Your task to perform on an android device: Open calendar and show me the fourth week of next month Image 0: 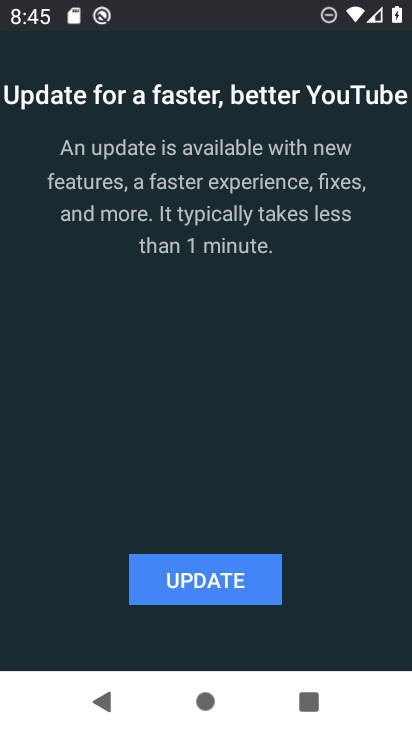
Step 0: press home button
Your task to perform on an android device: Open calendar and show me the fourth week of next month Image 1: 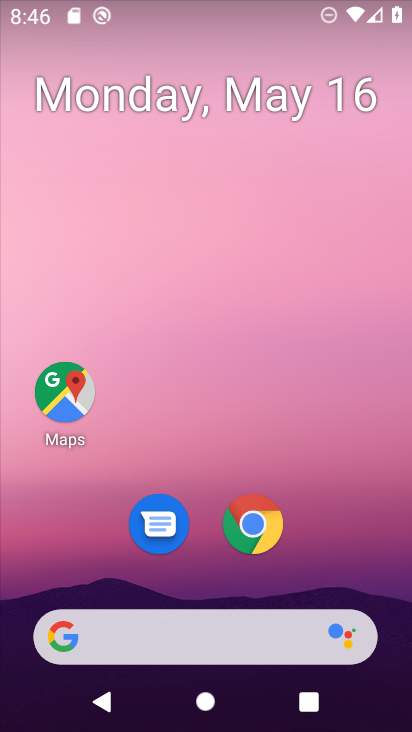
Step 1: drag from (318, 531) to (264, 87)
Your task to perform on an android device: Open calendar and show me the fourth week of next month Image 2: 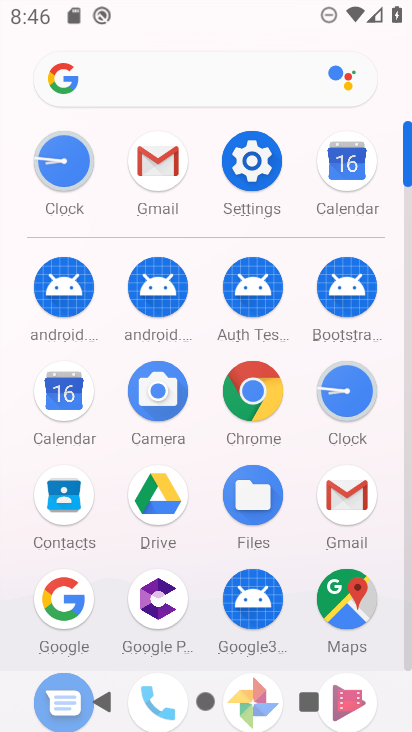
Step 2: click (332, 164)
Your task to perform on an android device: Open calendar and show me the fourth week of next month Image 3: 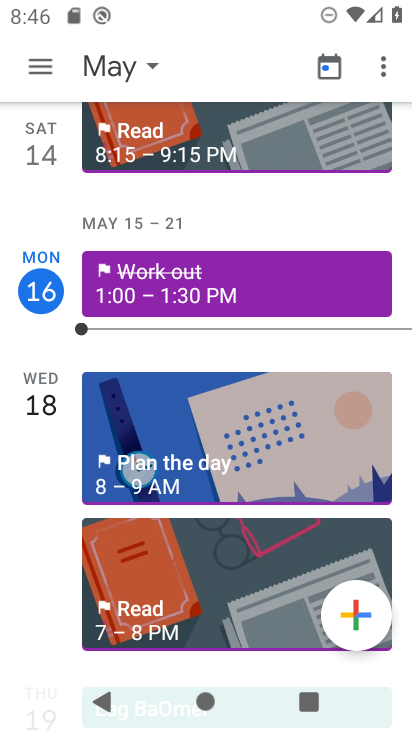
Step 3: click (31, 62)
Your task to perform on an android device: Open calendar and show me the fourth week of next month Image 4: 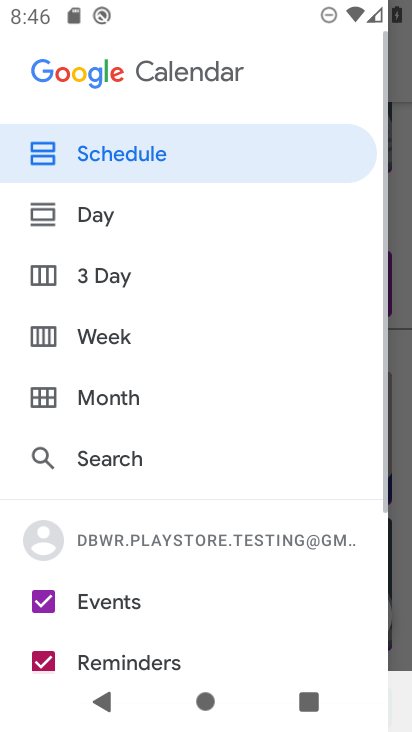
Step 4: click (105, 387)
Your task to perform on an android device: Open calendar and show me the fourth week of next month Image 5: 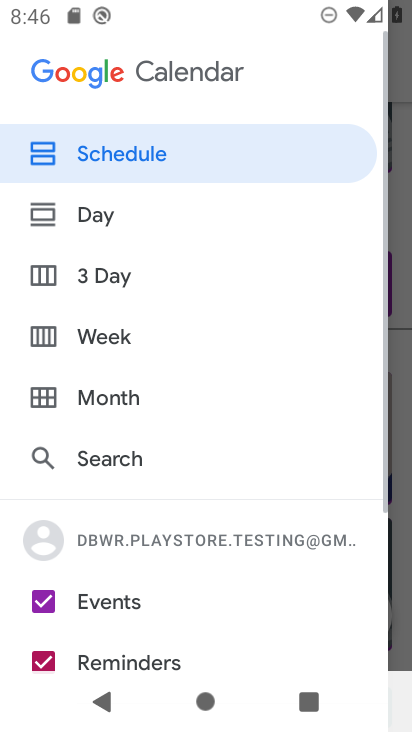
Step 5: click (55, 394)
Your task to perform on an android device: Open calendar and show me the fourth week of next month Image 6: 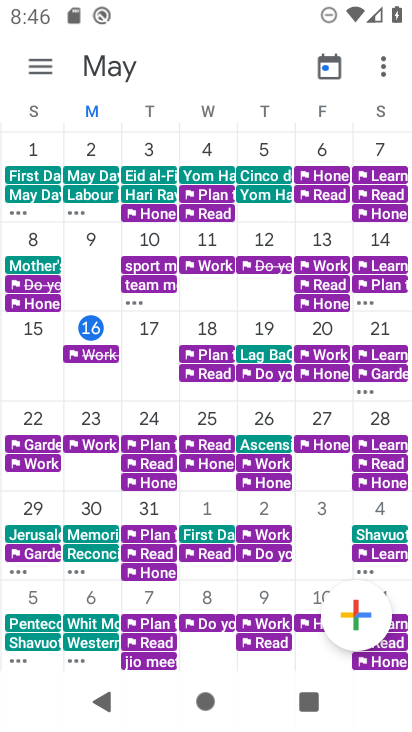
Step 6: drag from (383, 389) to (2, 393)
Your task to perform on an android device: Open calendar and show me the fourth week of next month Image 7: 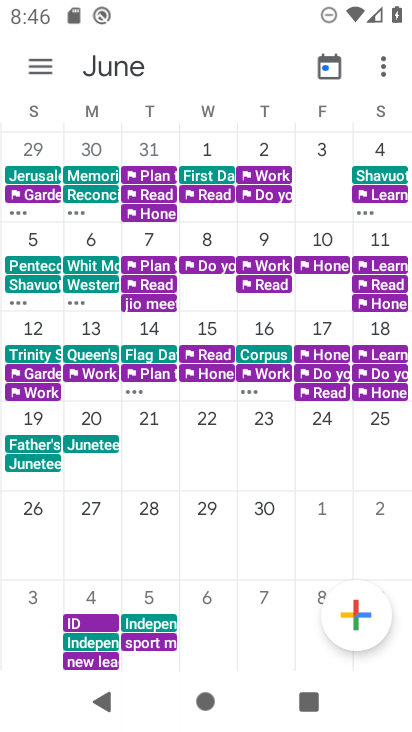
Step 7: click (40, 506)
Your task to perform on an android device: Open calendar and show me the fourth week of next month Image 8: 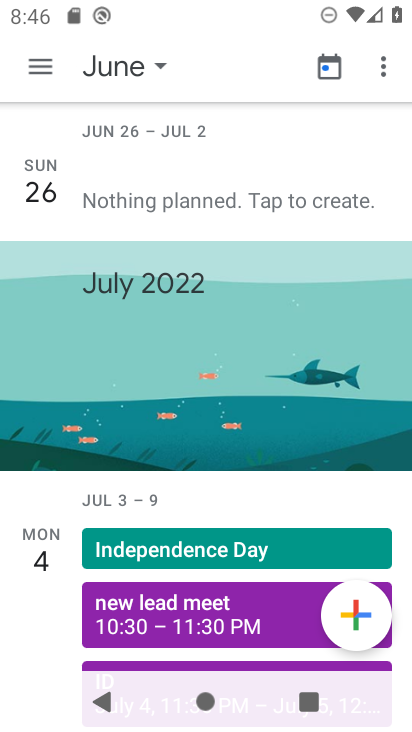
Step 8: click (33, 65)
Your task to perform on an android device: Open calendar and show me the fourth week of next month Image 9: 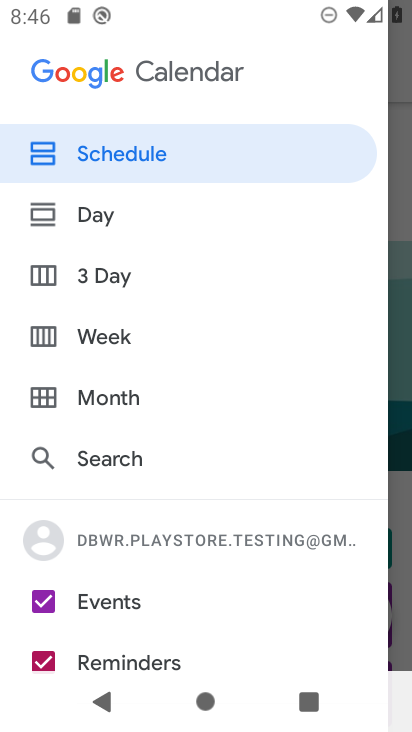
Step 9: click (39, 336)
Your task to perform on an android device: Open calendar and show me the fourth week of next month Image 10: 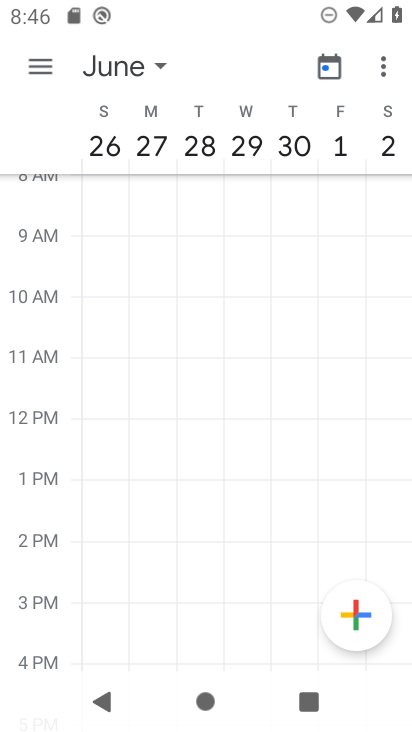
Step 10: task complete